Your task to perform on an android device: read, delete, or share a saved page in the chrome app Image 0: 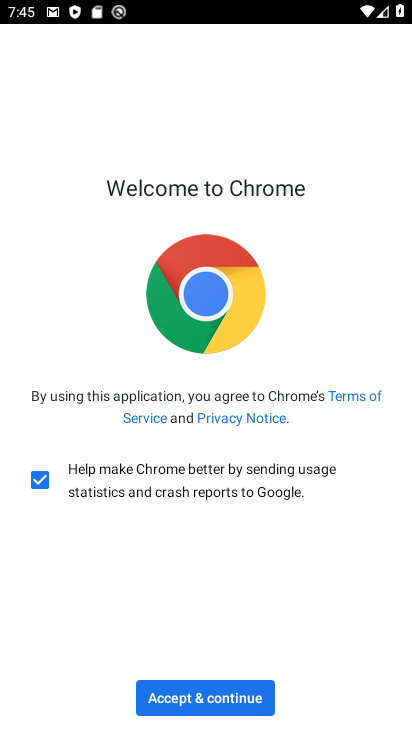
Step 0: press home button
Your task to perform on an android device: read, delete, or share a saved page in the chrome app Image 1: 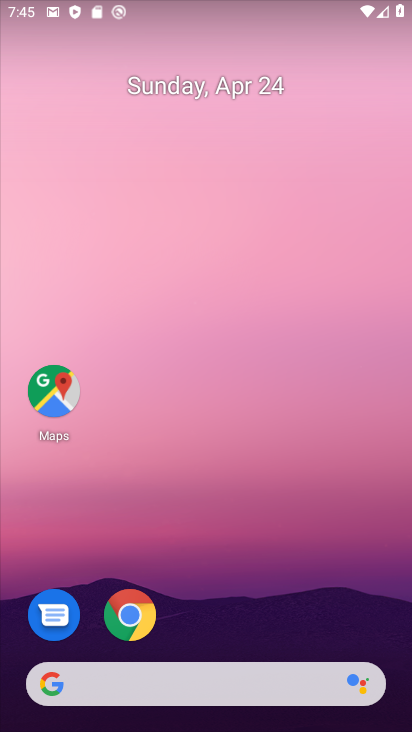
Step 1: click (139, 611)
Your task to perform on an android device: read, delete, or share a saved page in the chrome app Image 2: 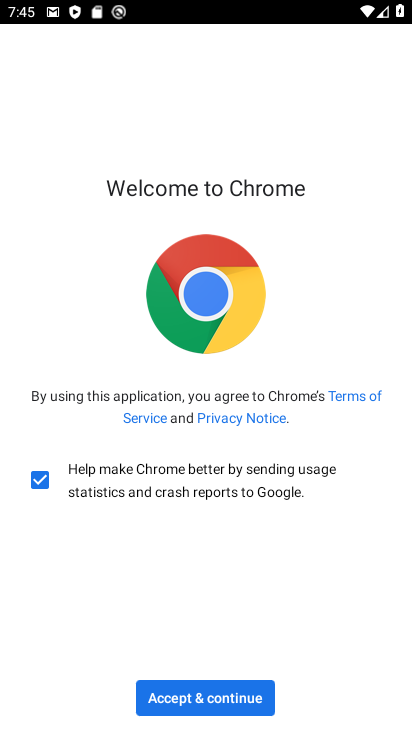
Step 2: click (215, 686)
Your task to perform on an android device: read, delete, or share a saved page in the chrome app Image 3: 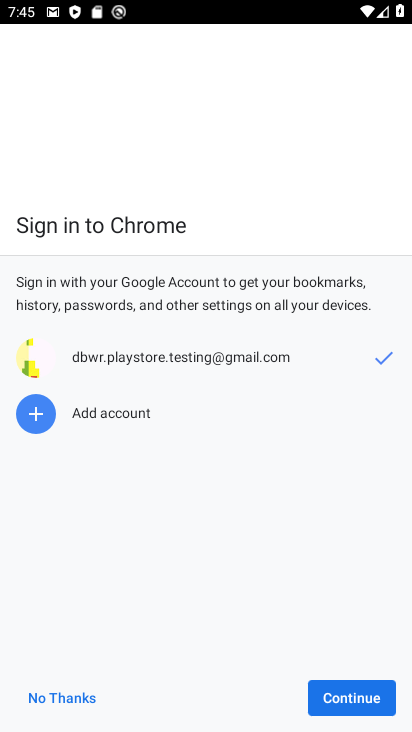
Step 3: click (330, 703)
Your task to perform on an android device: read, delete, or share a saved page in the chrome app Image 4: 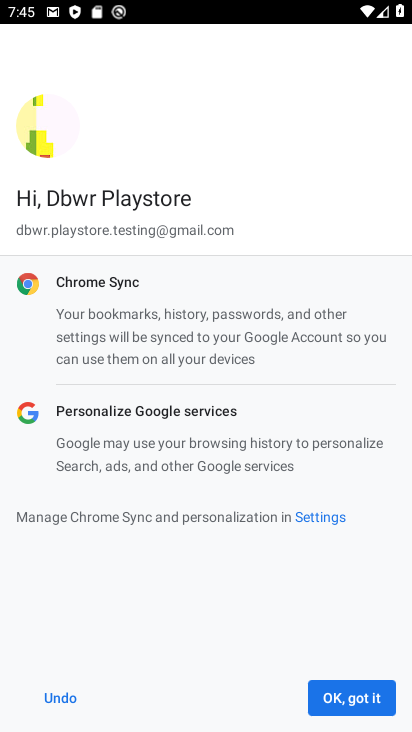
Step 4: click (330, 703)
Your task to perform on an android device: read, delete, or share a saved page in the chrome app Image 5: 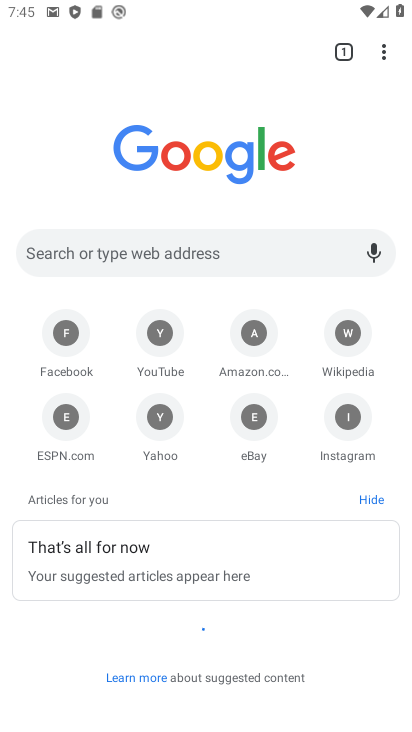
Step 5: click (380, 52)
Your task to perform on an android device: read, delete, or share a saved page in the chrome app Image 6: 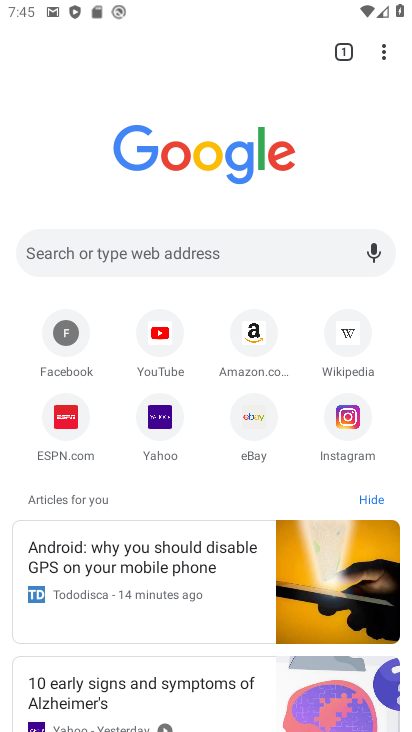
Step 6: click (384, 50)
Your task to perform on an android device: read, delete, or share a saved page in the chrome app Image 7: 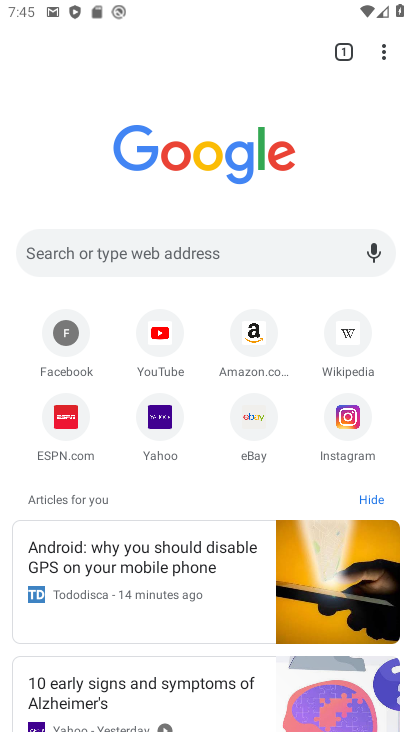
Step 7: click (381, 48)
Your task to perform on an android device: read, delete, or share a saved page in the chrome app Image 8: 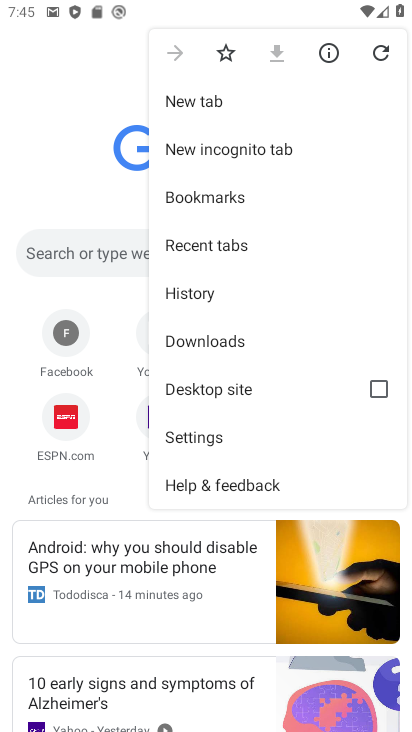
Step 8: click (189, 347)
Your task to perform on an android device: read, delete, or share a saved page in the chrome app Image 9: 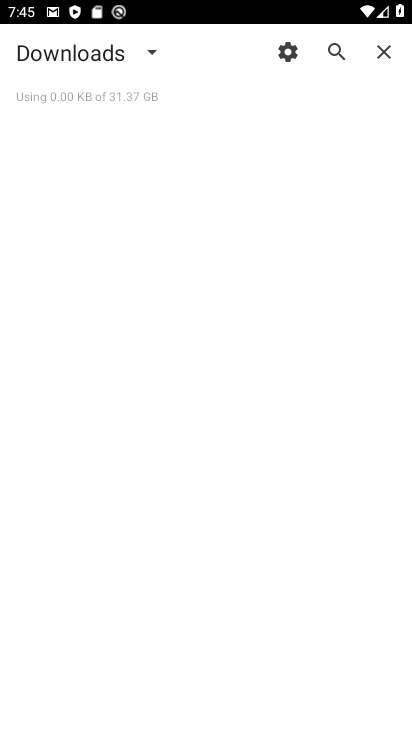
Step 9: task complete